Your task to perform on an android device: Go to location settings Image 0: 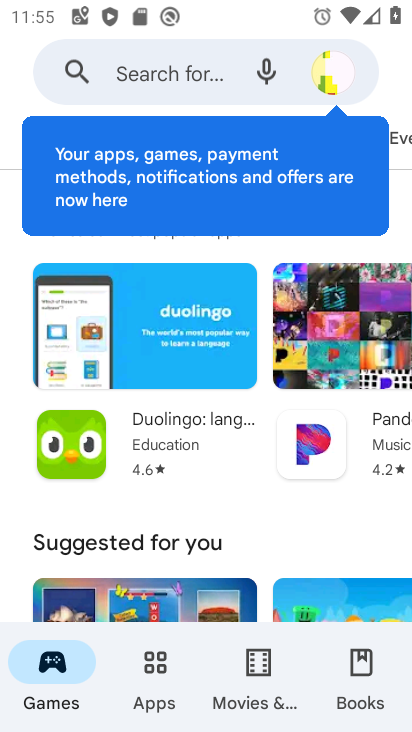
Step 0: press home button
Your task to perform on an android device: Go to location settings Image 1: 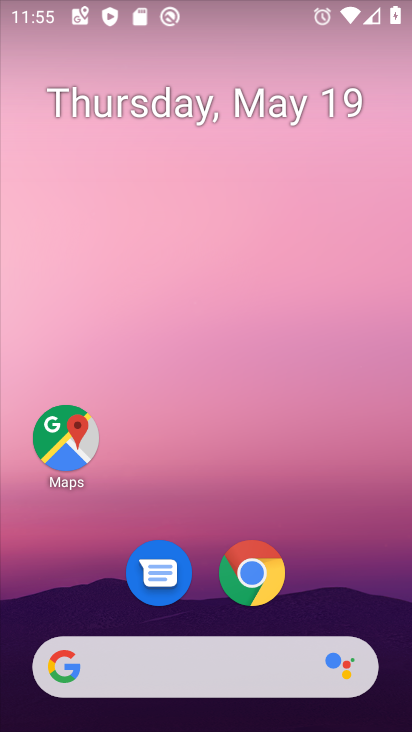
Step 1: drag from (209, 622) to (252, 5)
Your task to perform on an android device: Go to location settings Image 2: 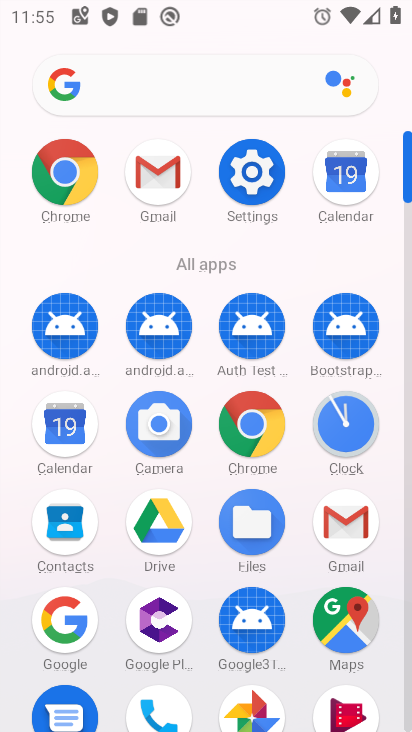
Step 2: click (245, 182)
Your task to perform on an android device: Go to location settings Image 3: 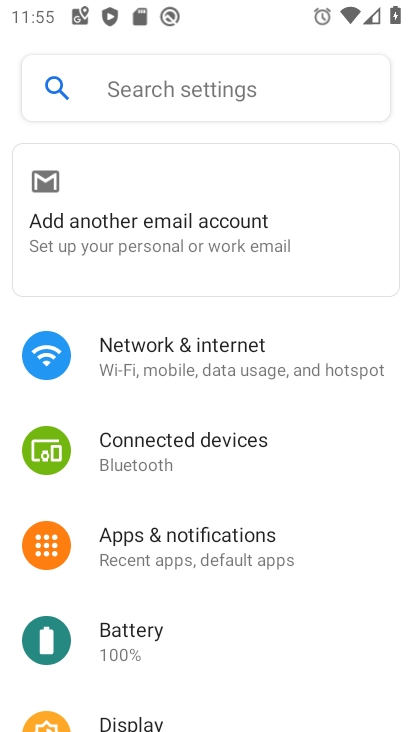
Step 3: drag from (145, 658) to (207, 205)
Your task to perform on an android device: Go to location settings Image 4: 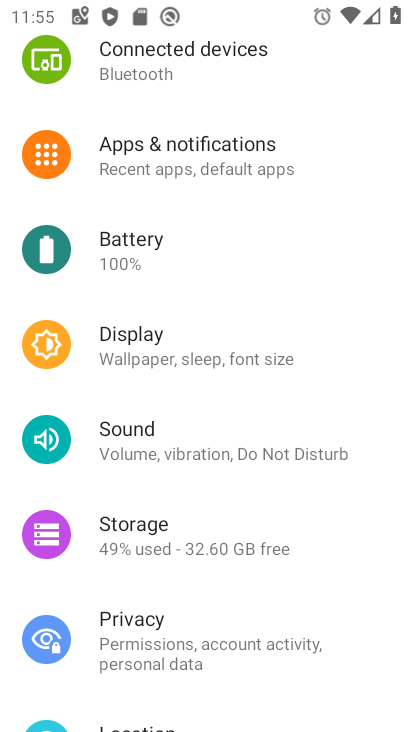
Step 4: drag from (234, 594) to (252, 139)
Your task to perform on an android device: Go to location settings Image 5: 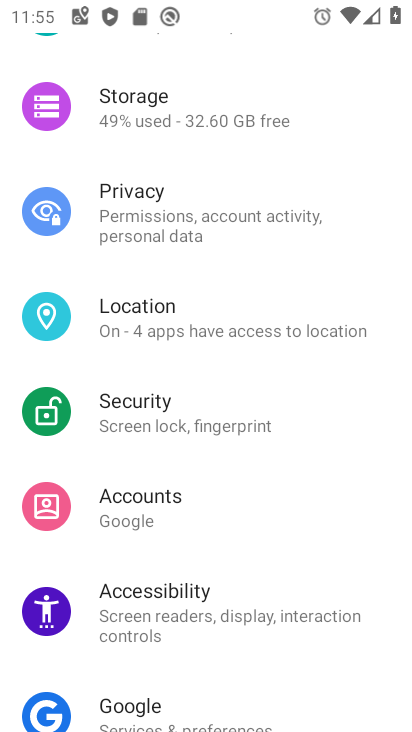
Step 5: click (173, 313)
Your task to perform on an android device: Go to location settings Image 6: 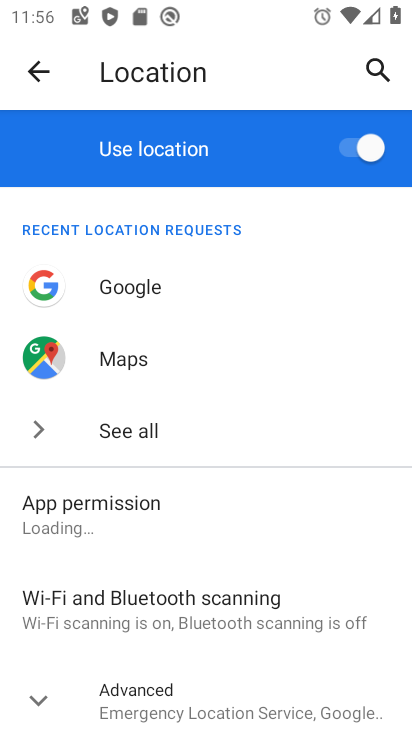
Step 6: task complete